Your task to perform on an android device: turn on improve location accuracy Image 0: 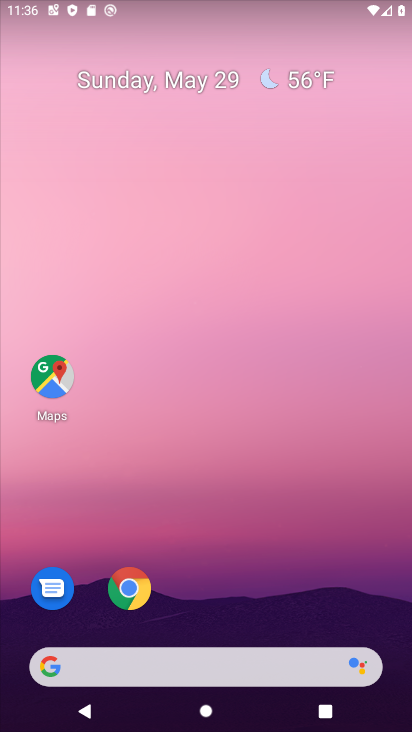
Step 0: drag from (336, 527) to (356, 4)
Your task to perform on an android device: turn on improve location accuracy Image 1: 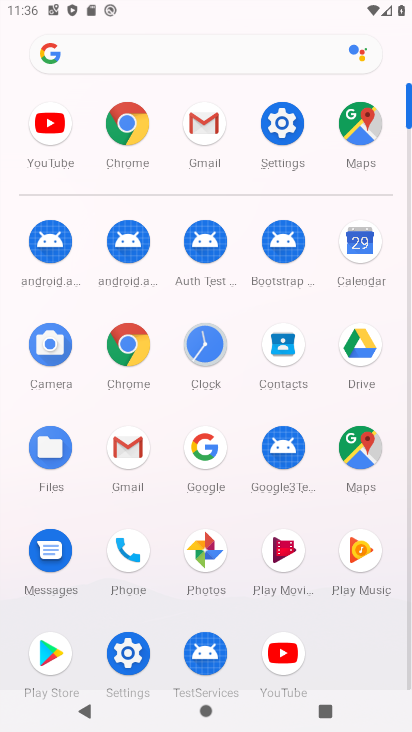
Step 1: click (291, 122)
Your task to perform on an android device: turn on improve location accuracy Image 2: 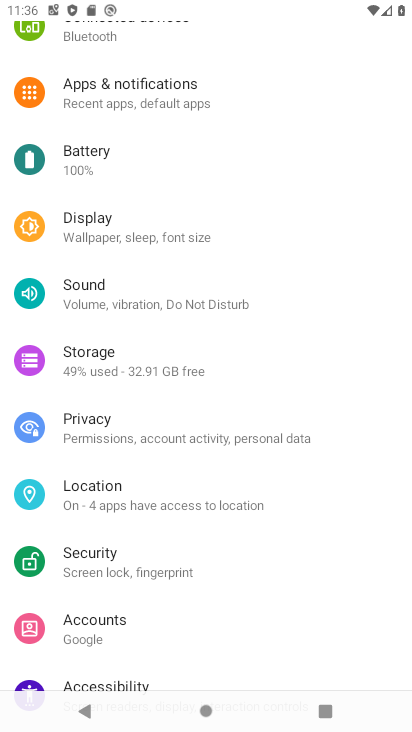
Step 2: click (124, 474)
Your task to perform on an android device: turn on improve location accuracy Image 3: 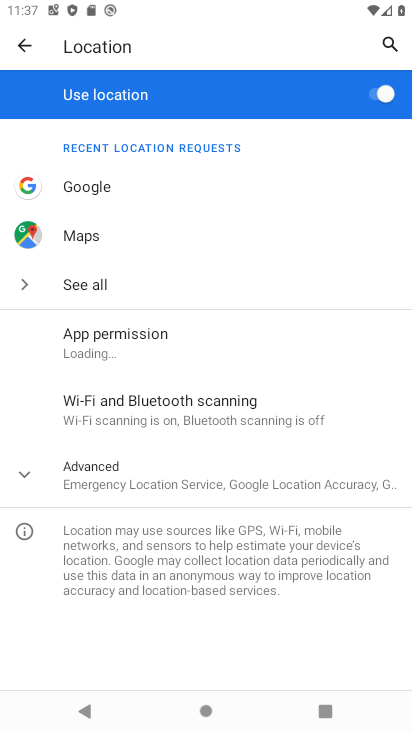
Step 3: click (130, 477)
Your task to perform on an android device: turn on improve location accuracy Image 4: 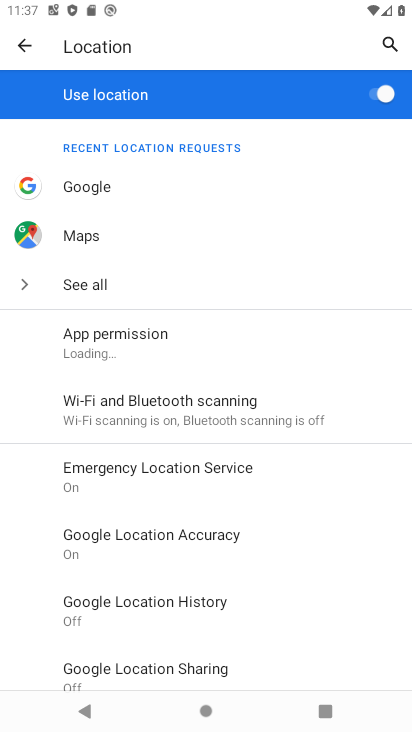
Step 4: drag from (217, 629) to (231, 125)
Your task to perform on an android device: turn on improve location accuracy Image 5: 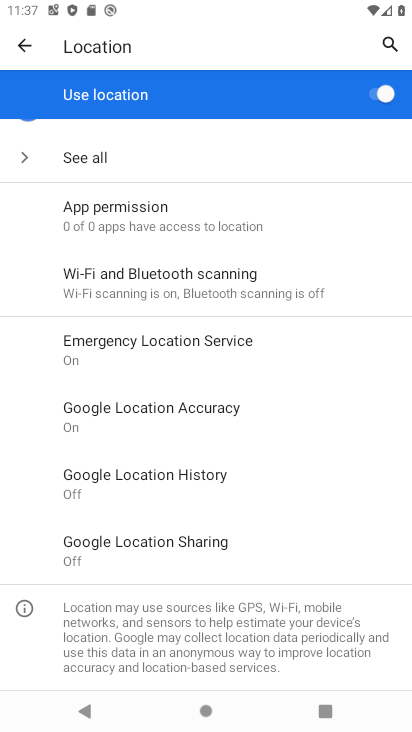
Step 5: click (191, 414)
Your task to perform on an android device: turn on improve location accuracy Image 6: 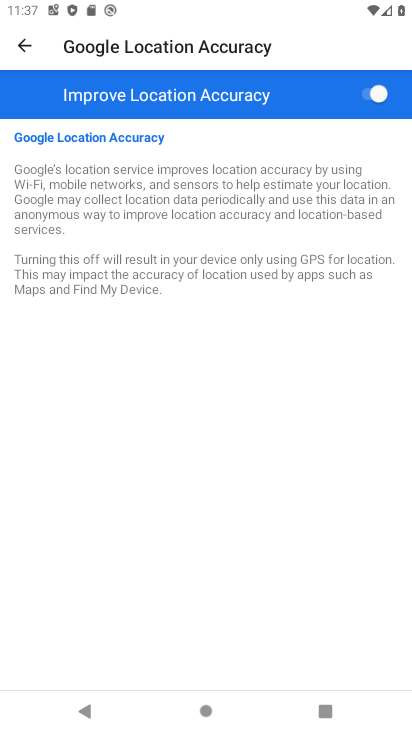
Step 6: task complete